Your task to perform on an android device: open a bookmark in the chrome app Image 0: 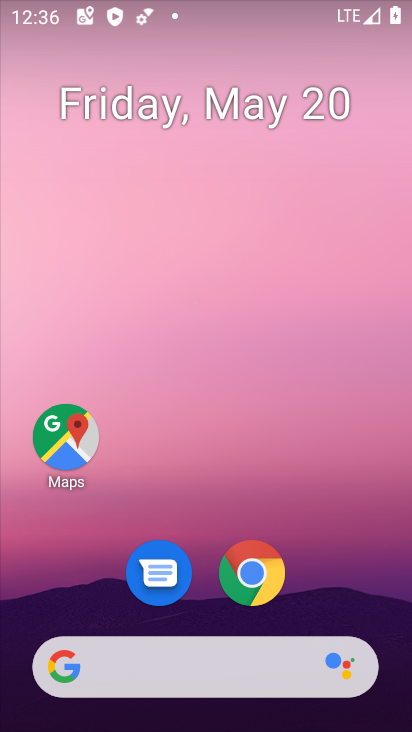
Step 0: click (247, 566)
Your task to perform on an android device: open a bookmark in the chrome app Image 1: 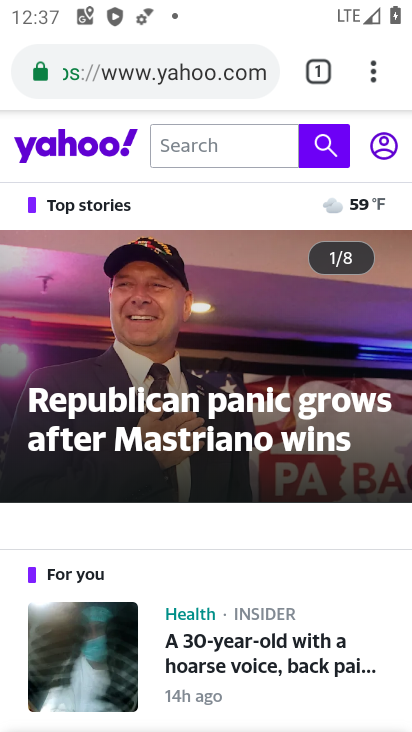
Step 1: click (370, 73)
Your task to perform on an android device: open a bookmark in the chrome app Image 2: 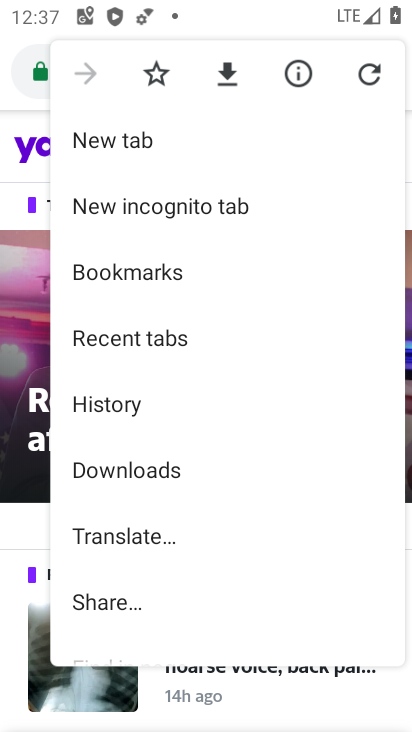
Step 2: click (167, 277)
Your task to perform on an android device: open a bookmark in the chrome app Image 3: 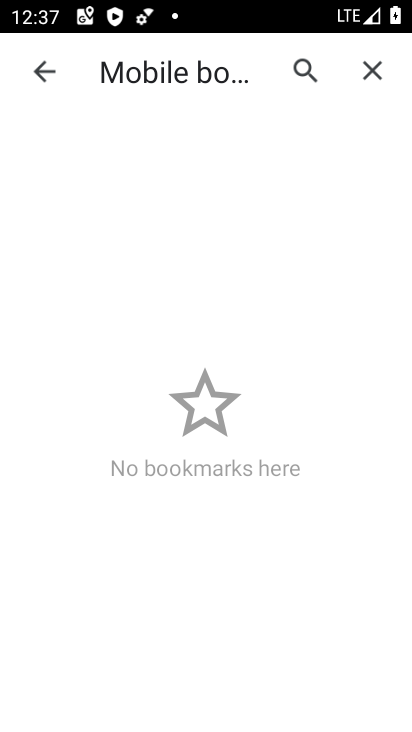
Step 3: task complete